Your task to perform on an android device: check the backup settings in the google photos Image 0: 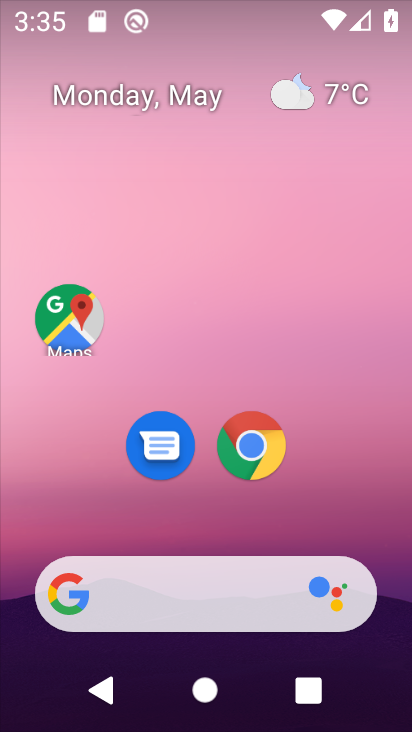
Step 0: drag from (244, 489) to (201, 29)
Your task to perform on an android device: check the backup settings in the google photos Image 1: 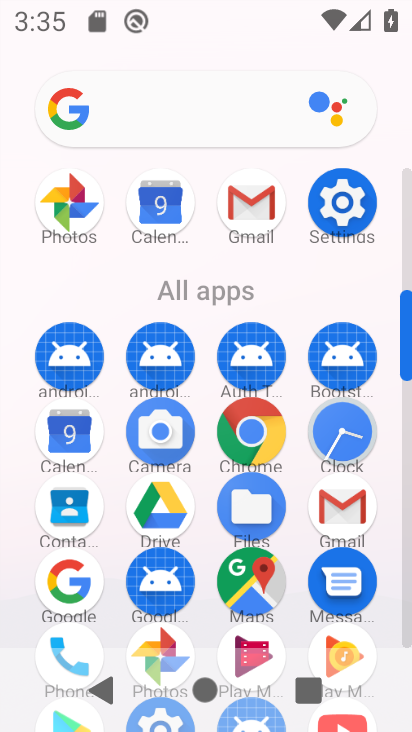
Step 1: click (165, 635)
Your task to perform on an android device: check the backup settings in the google photos Image 2: 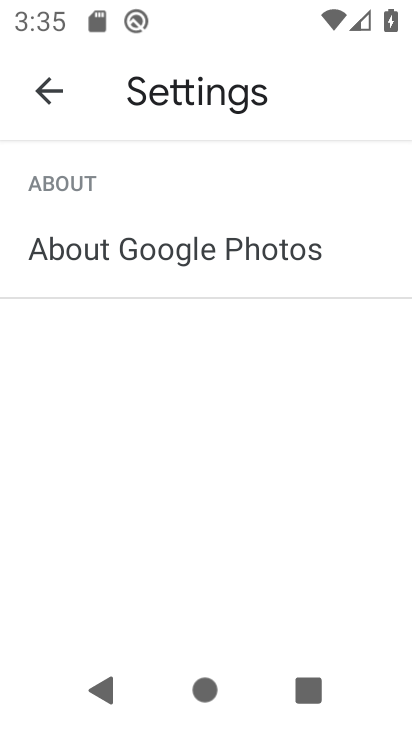
Step 2: click (48, 73)
Your task to perform on an android device: check the backup settings in the google photos Image 3: 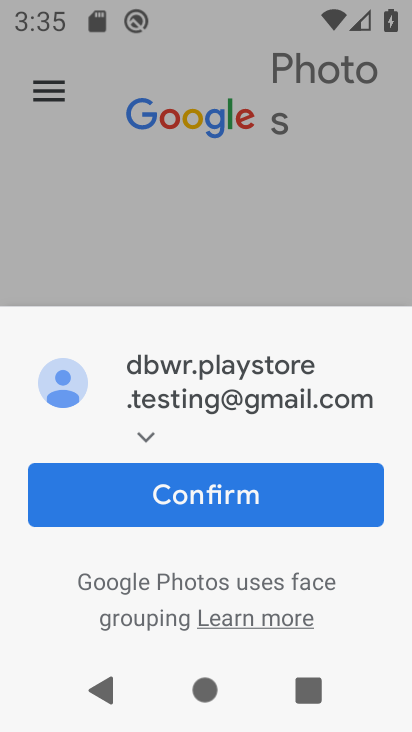
Step 3: click (50, 74)
Your task to perform on an android device: check the backup settings in the google photos Image 4: 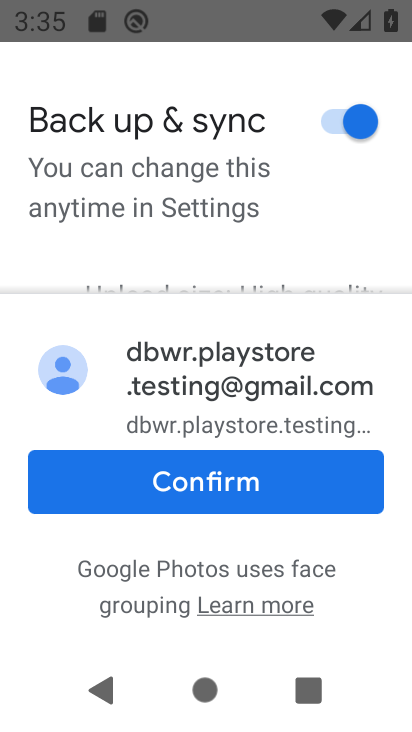
Step 4: click (212, 495)
Your task to perform on an android device: check the backup settings in the google photos Image 5: 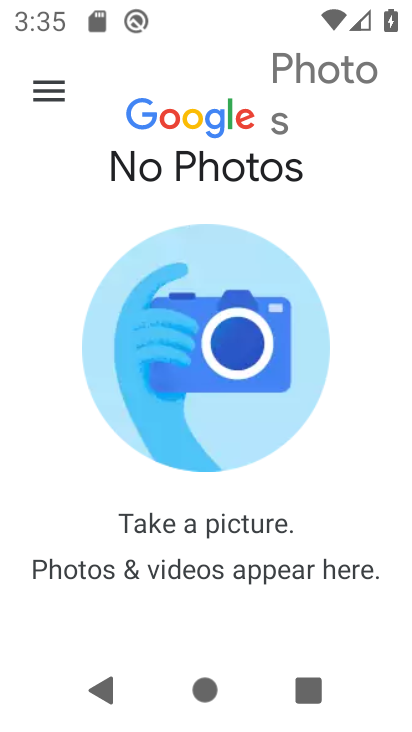
Step 5: click (56, 99)
Your task to perform on an android device: check the backup settings in the google photos Image 6: 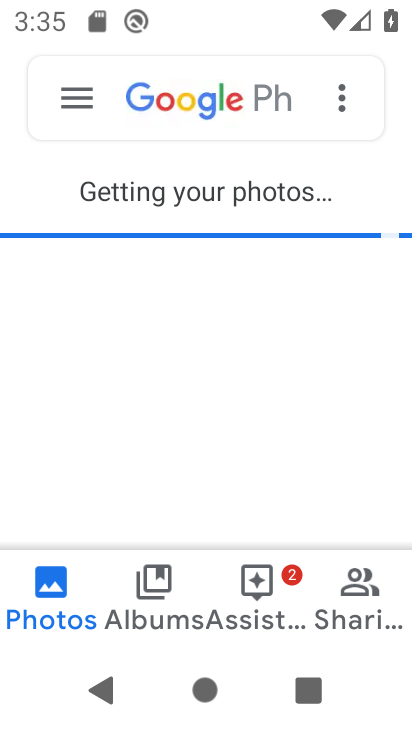
Step 6: click (57, 90)
Your task to perform on an android device: check the backup settings in the google photos Image 7: 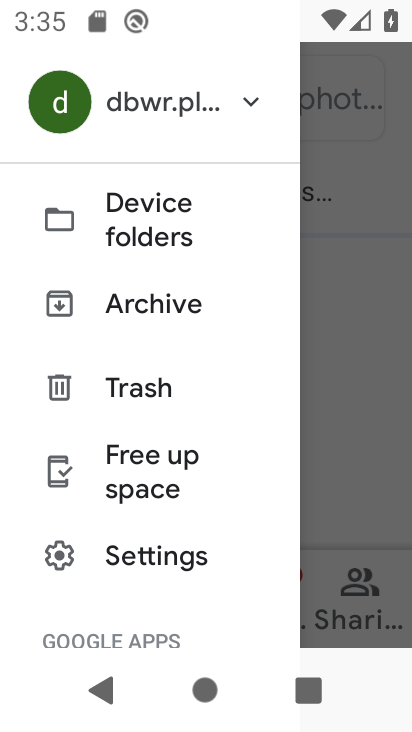
Step 7: drag from (215, 477) to (159, 161)
Your task to perform on an android device: check the backup settings in the google photos Image 8: 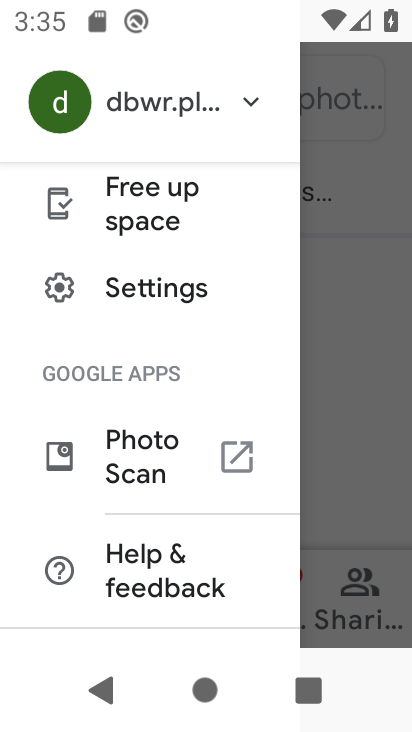
Step 8: click (153, 302)
Your task to perform on an android device: check the backup settings in the google photos Image 9: 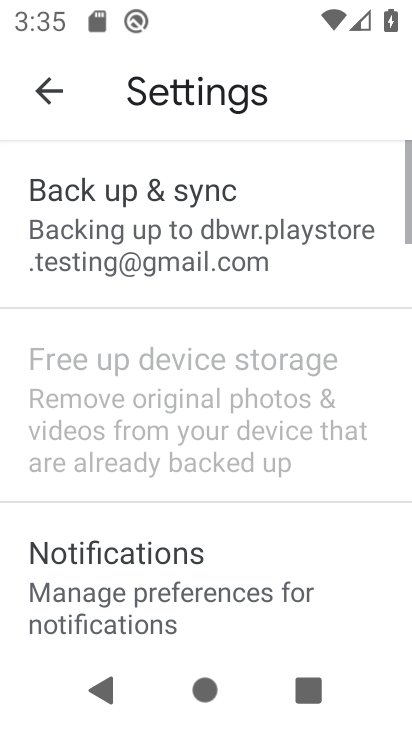
Step 9: click (146, 219)
Your task to perform on an android device: check the backup settings in the google photos Image 10: 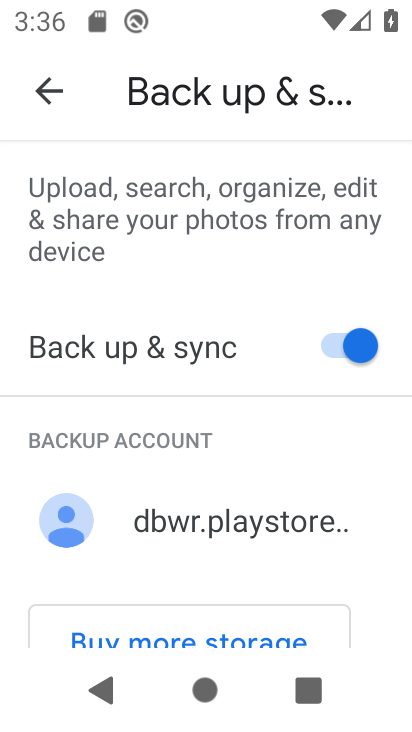
Step 10: task complete